Your task to perform on an android device: Open battery settings Image 0: 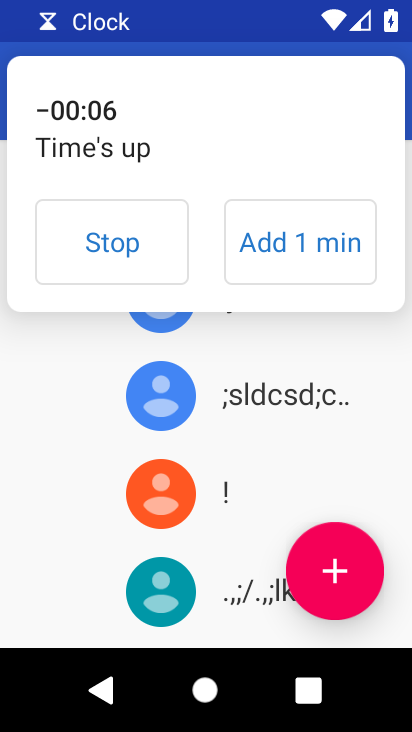
Step 0: press home button
Your task to perform on an android device: Open battery settings Image 1: 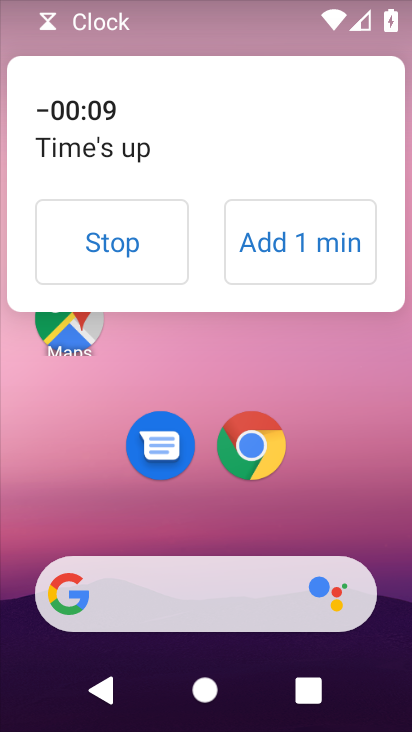
Step 1: drag from (121, 499) to (235, 14)
Your task to perform on an android device: Open battery settings Image 2: 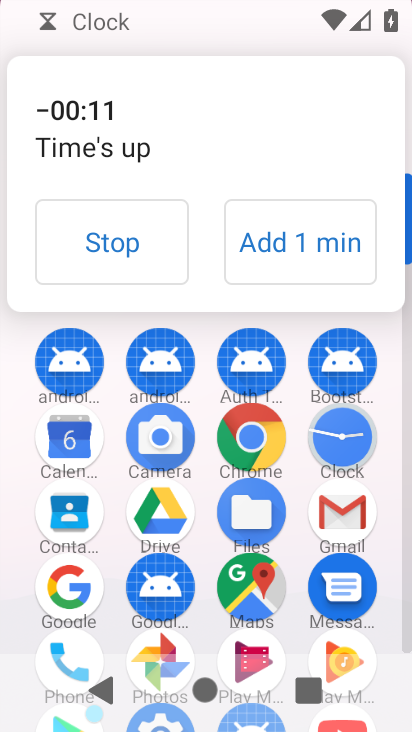
Step 2: drag from (181, 658) to (324, 316)
Your task to perform on an android device: Open battery settings Image 3: 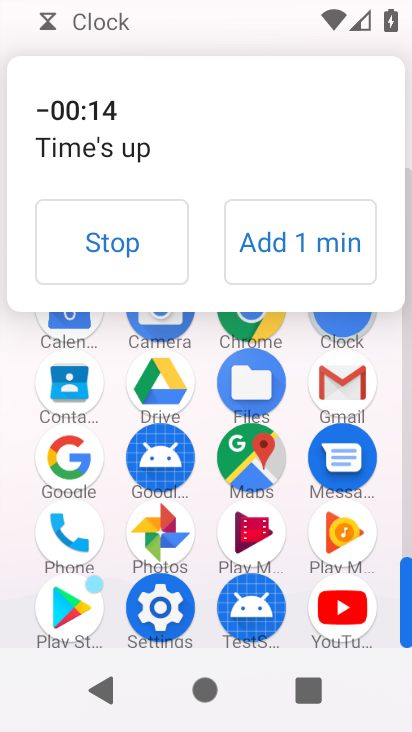
Step 3: click (145, 612)
Your task to perform on an android device: Open battery settings Image 4: 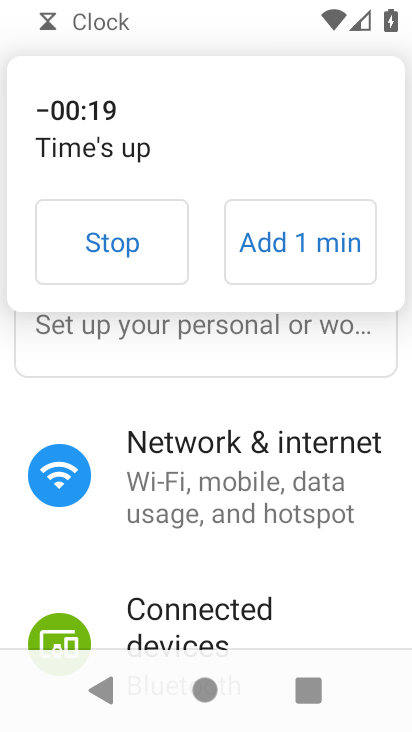
Step 4: drag from (199, 623) to (331, 343)
Your task to perform on an android device: Open battery settings Image 5: 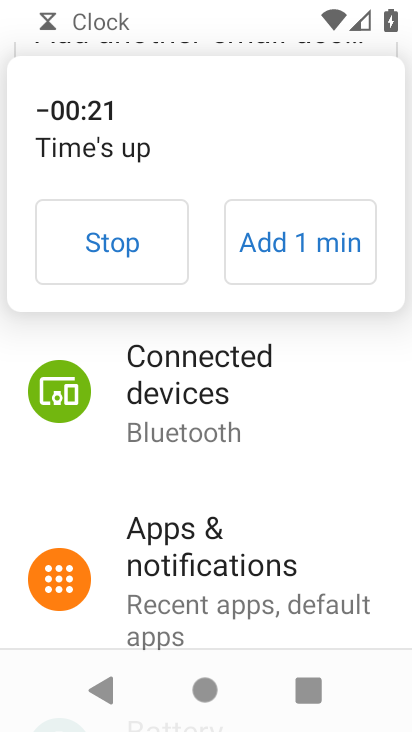
Step 5: drag from (201, 598) to (310, 307)
Your task to perform on an android device: Open battery settings Image 6: 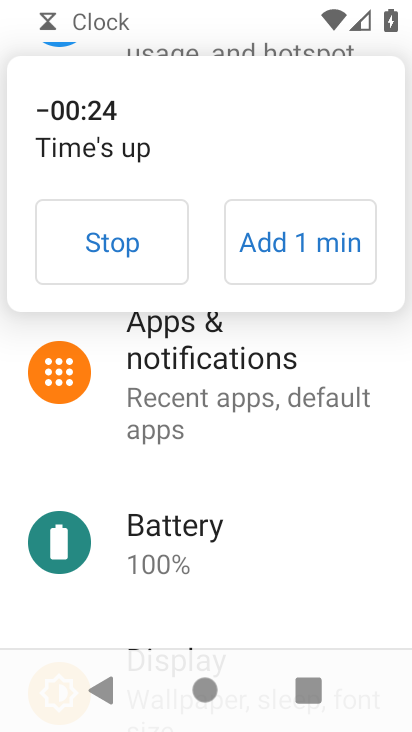
Step 6: click (239, 550)
Your task to perform on an android device: Open battery settings Image 7: 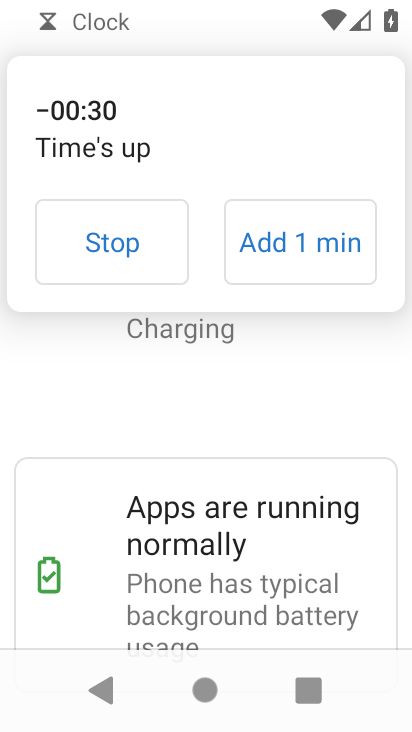
Step 7: click (149, 247)
Your task to perform on an android device: Open battery settings Image 8: 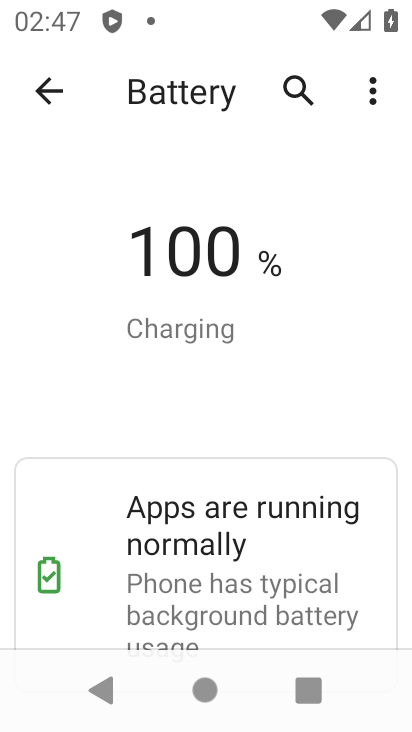
Step 8: task complete